Your task to perform on an android device: turn off smart reply in the gmail app Image 0: 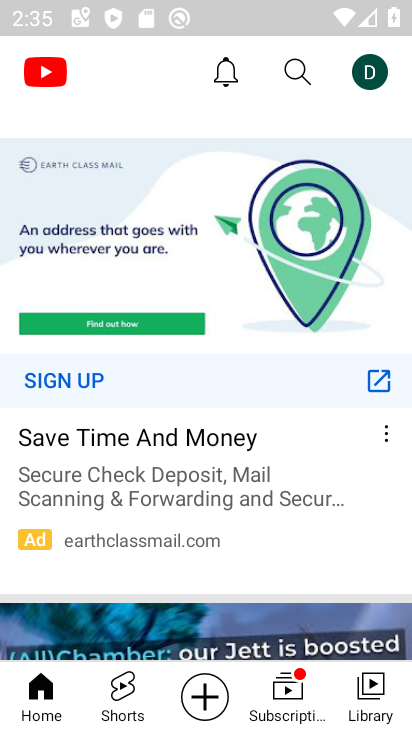
Step 0: press home button
Your task to perform on an android device: turn off smart reply in the gmail app Image 1: 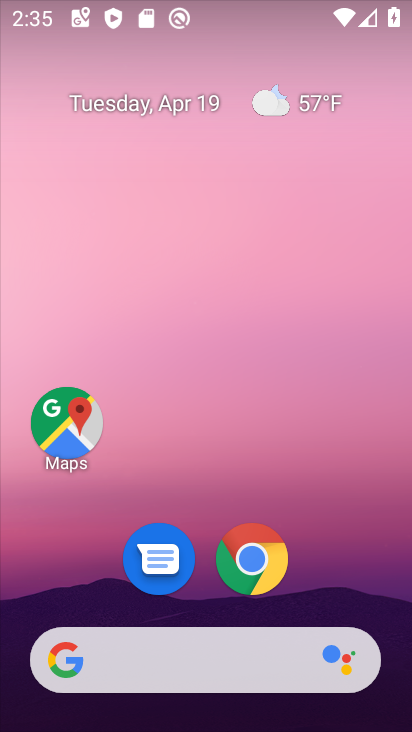
Step 1: click (232, 161)
Your task to perform on an android device: turn off smart reply in the gmail app Image 2: 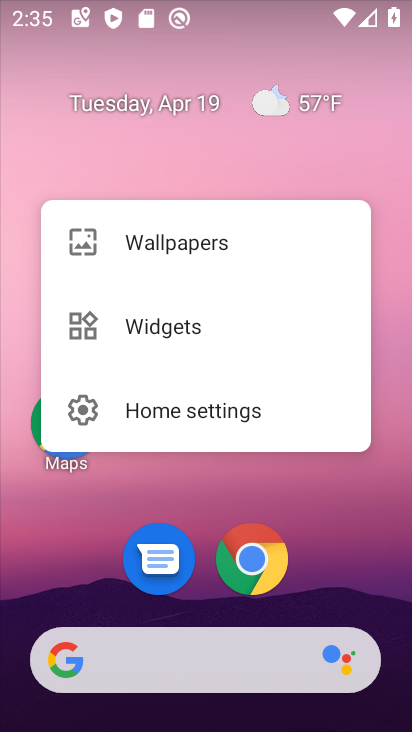
Step 2: drag from (210, 470) to (211, 420)
Your task to perform on an android device: turn off smart reply in the gmail app Image 3: 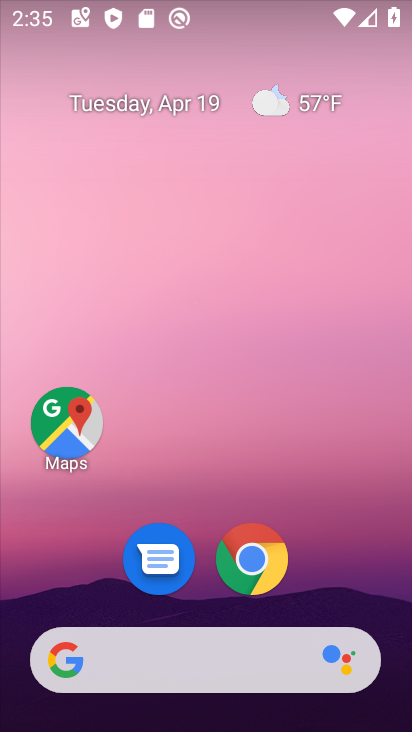
Step 3: drag from (199, 484) to (239, 102)
Your task to perform on an android device: turn off smart reply in the gmail app Image 4: 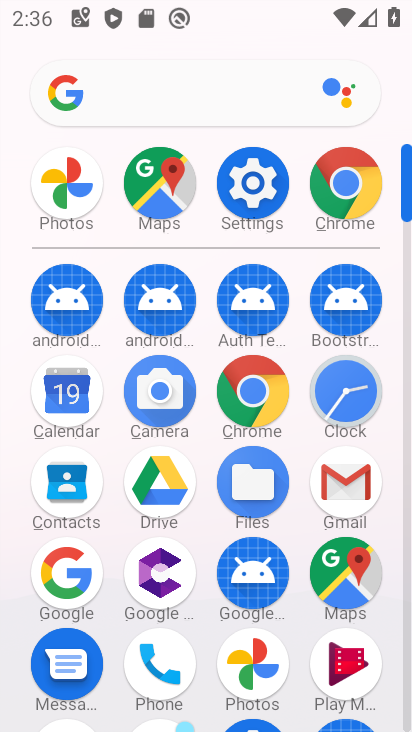
Step 4: click (350, 475)
Your task to perform on an android device: turn off smart reply in the gmail app Image 5: 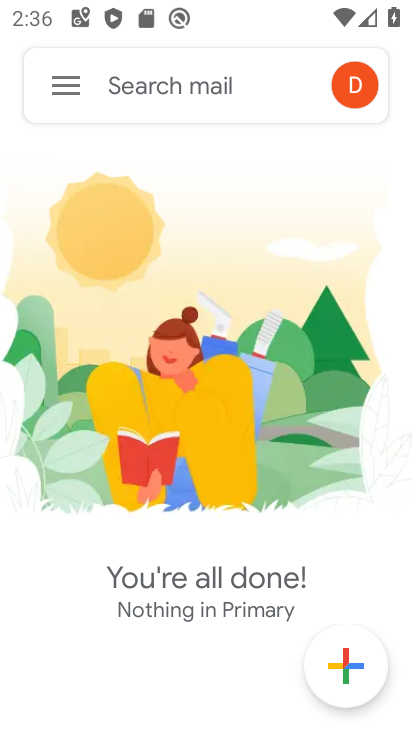
Step 5: click (65, 88)
Your task to perform on an android device: turn off smart reply in the gmail app Image 6: 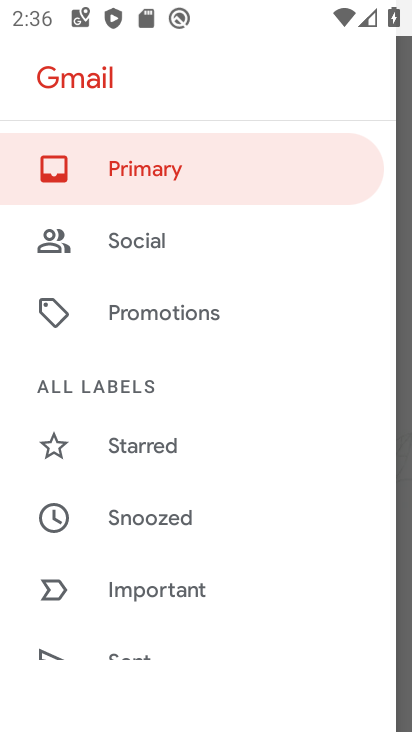
Step 6: drag from (108, 504) to (104, 57)
Your task to perform on an android device: turn off smart reply in the gmail app Image 7: 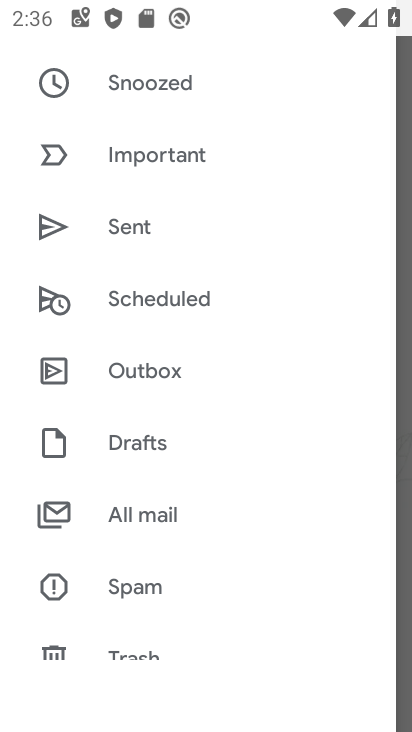
Step 7: drag from (135, 563) to (176, 22)
Your task to perform on an android device: turn off smart reply in the gmail app Image 8: 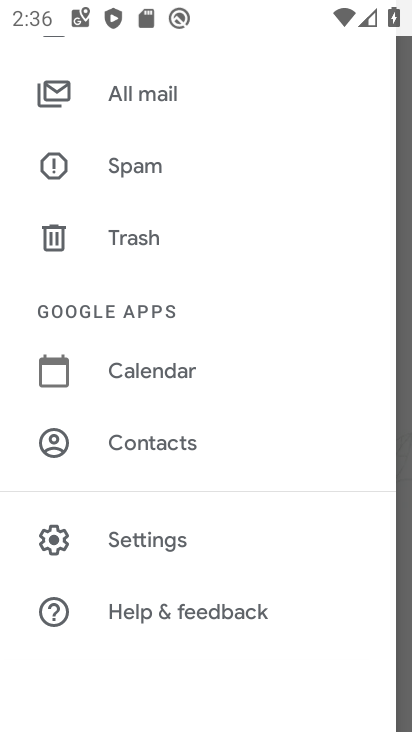
Step 8: drag from (137, 585) to (129, 487)
Your task to perform on an android device: turn off smart reply in the gmail app Image 9: 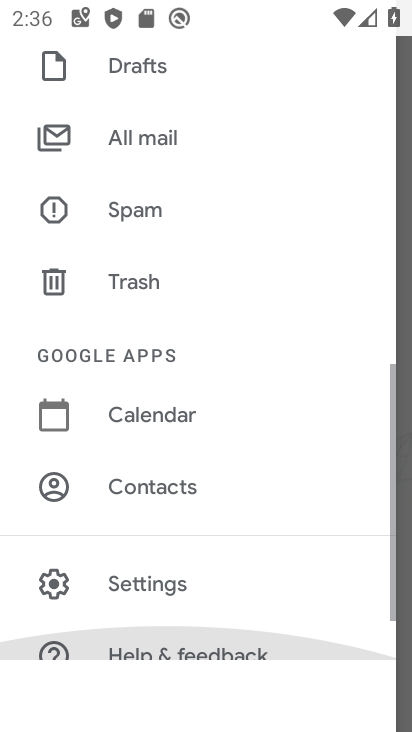
Step 9: click (120, 541)
Your task to perform on an android device: turn off smart reply in the gmail app Image 10: 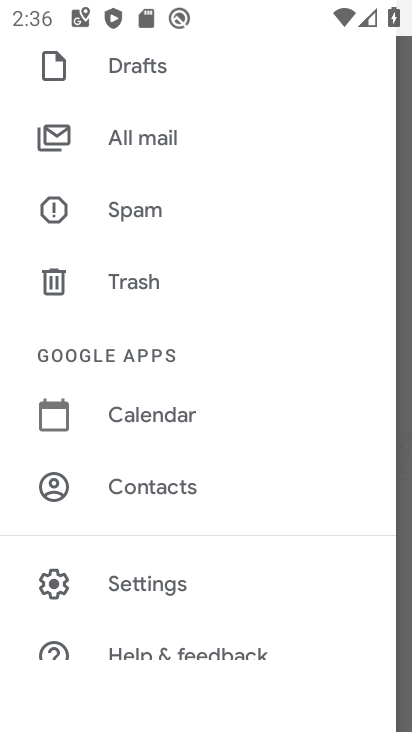
Step 10: click (149, 586)
Your task to perform on an android device: turn off smart reply in the gmail app Image 11: 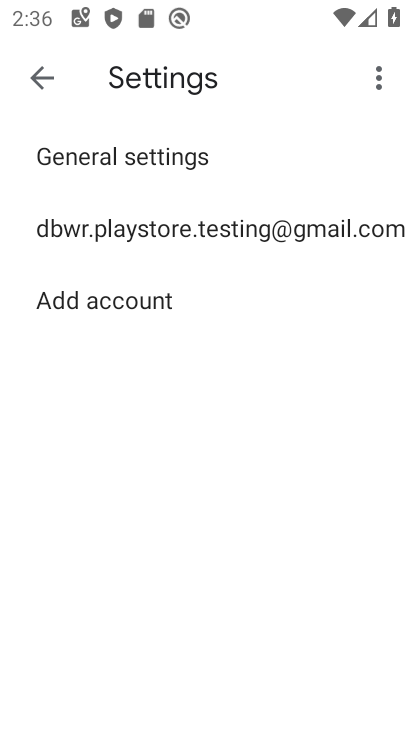
Step 11: click (145, 237)
Your task to perform on an android device: turn off smart reply in the gmail app Image 12: 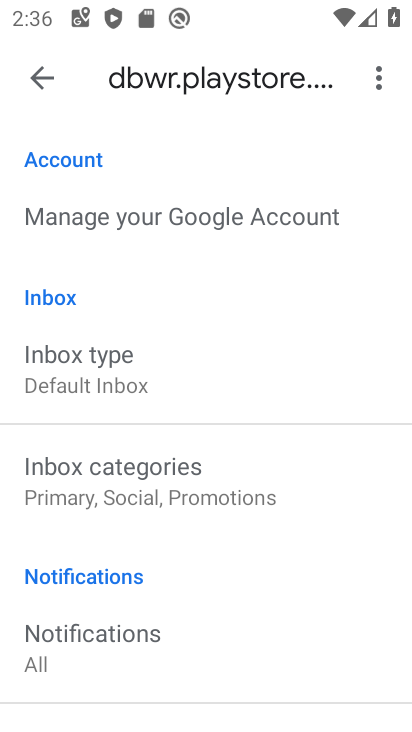
Step 12: drag from (205, 625) to (203, 254)
Your task to perform on an android device: turn off smart reply in the gmail app Image 13: 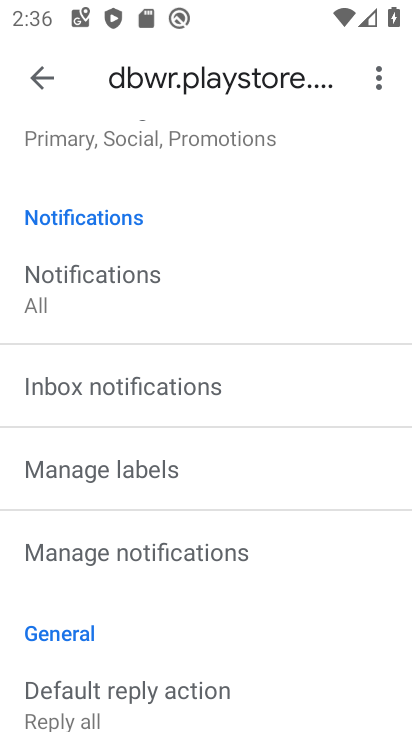
Step 13: drag from (207, 482) to (206, 189)
Your task to perform on an android device: turn off smart reply in the gmail app Image 14: 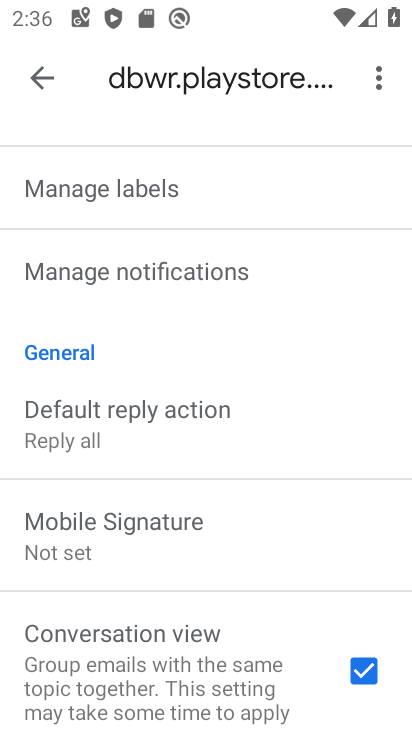
Step 14: drag from (213, 641) to (255, 145)
Your task to perform on an android device: turn off smart reply in the gmail app Image 15: 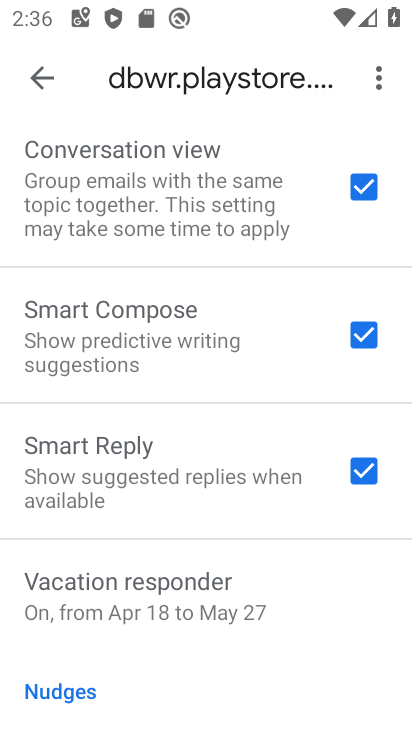
Step 15: click (367, 463)
Your task to perform on an android device: turn off smart reply in the gmail app Image 16: 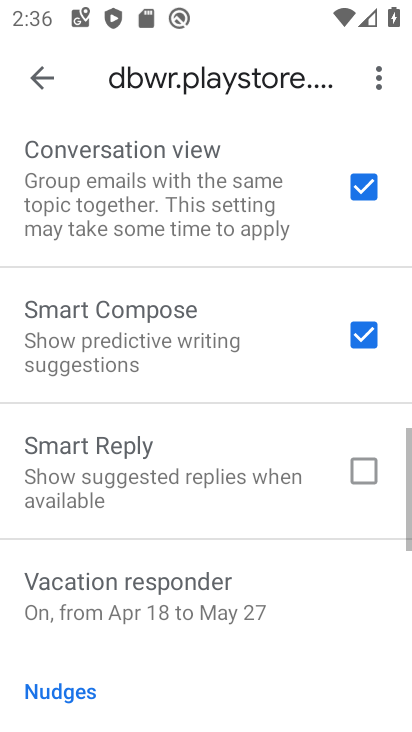
Step 16: task complete